Your task to perform on an android device: refresh tabs in the chrome app Image 0: 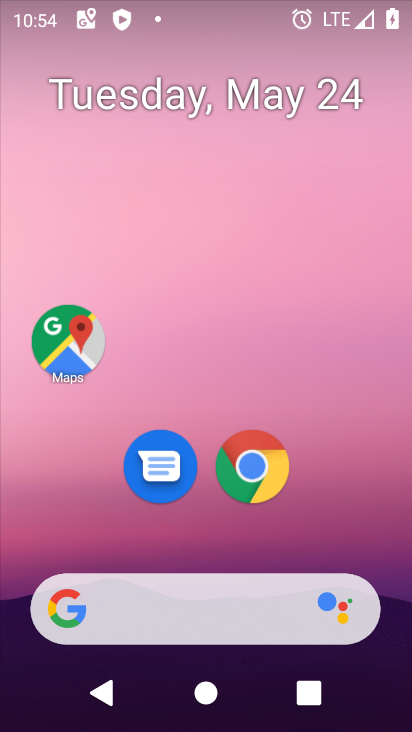
Step 0: drag from (391, 544) to (378, 227)
Your task to perform on an android device: refresh tabs in the chrome app Image 1: 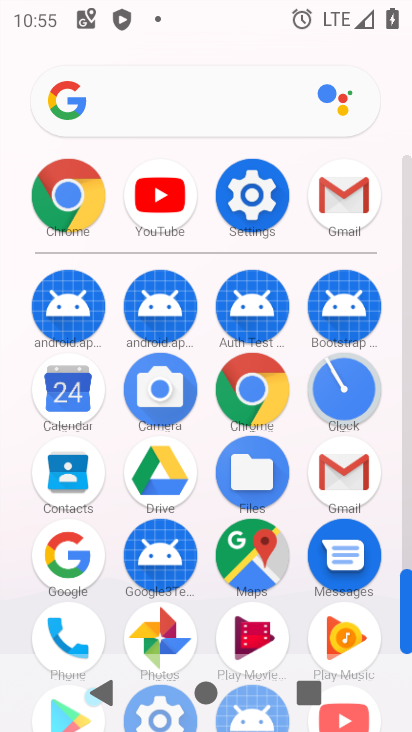
Step 1: click (264, 394)
Your task to perform on an android device: refresh tabs in the chrome app Image 2: 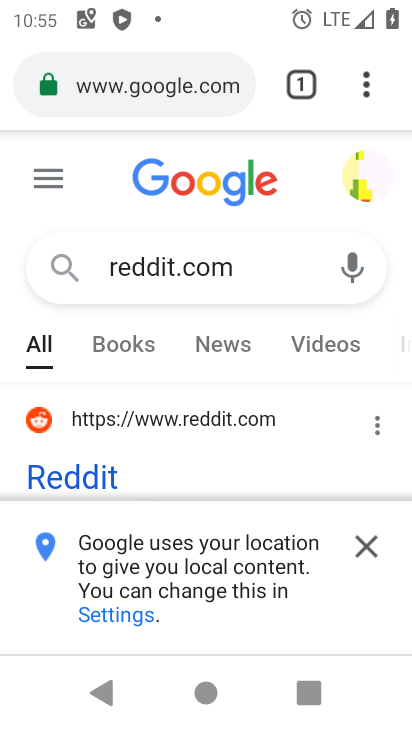
Step 2: click (363, 92)
Your task to perform on an android device: refresh tabs in the chrome app Image 3: 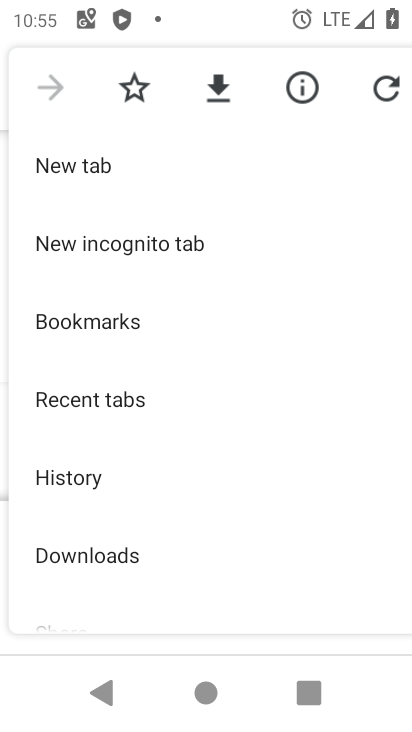
Step 3: click (388, 82)
Your task to perform on an android device: refresh tabs in the chrome app Image 4: 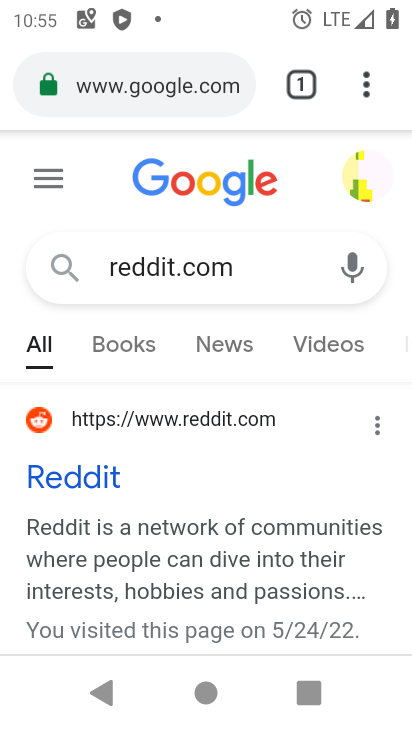
Step 4: task complete